Your task to perform on an android device: What's the weather like in London? Image 0: 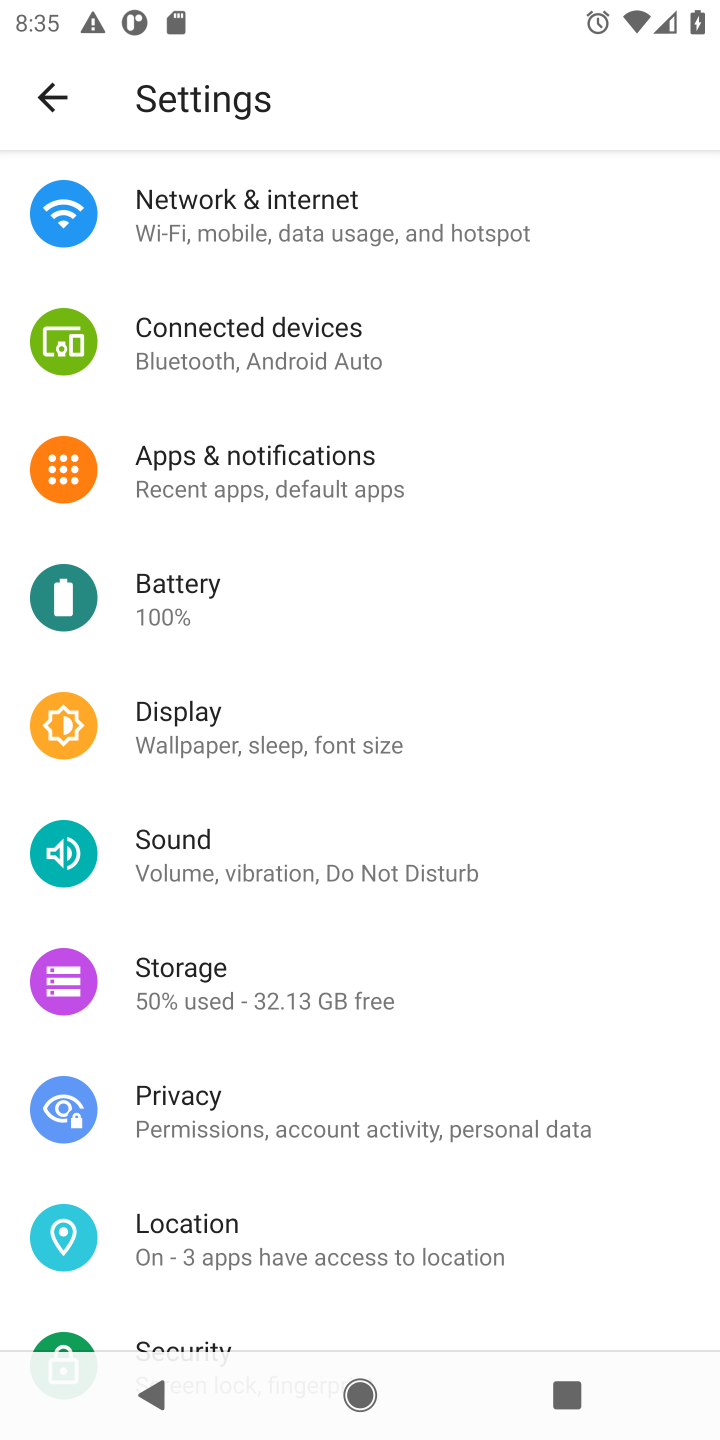
Step 0: press home button
Your task to perform on an android device: What's the weather like in London? Image 1: 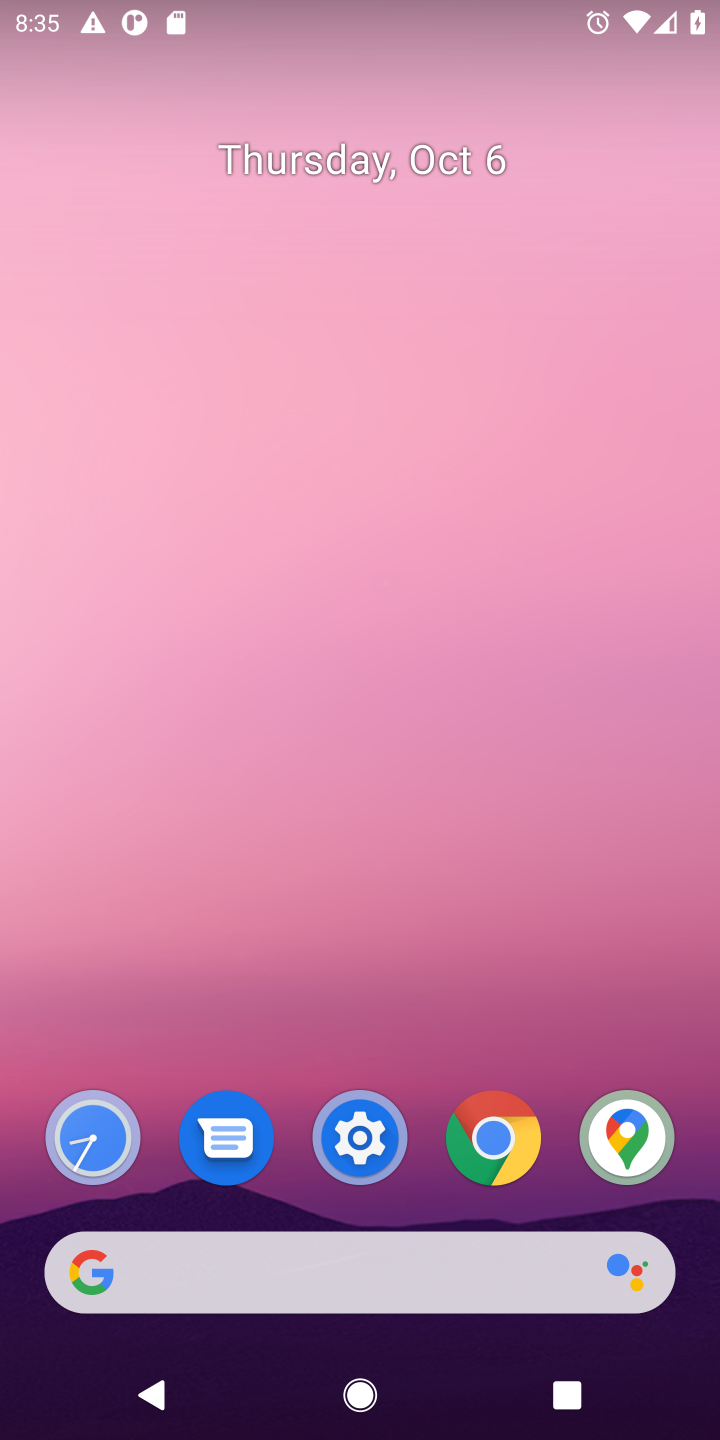
Step 1: click (440, 1283)
Your task to perform on an android device: What's the weather like in London? Image 2: 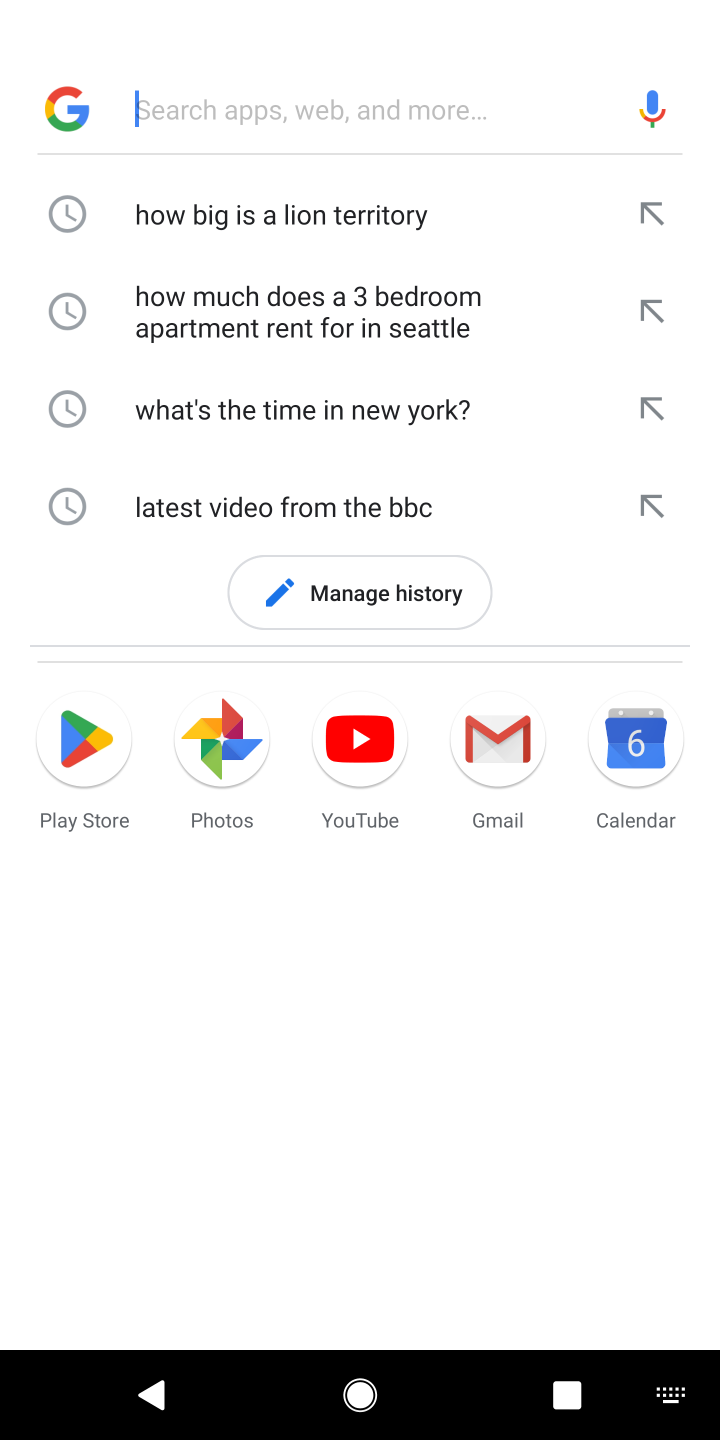
Step 2: drag from (422, 1343) to (573, 1432)
Your task to perform on an android device: What's the weather like in London? Image 3: 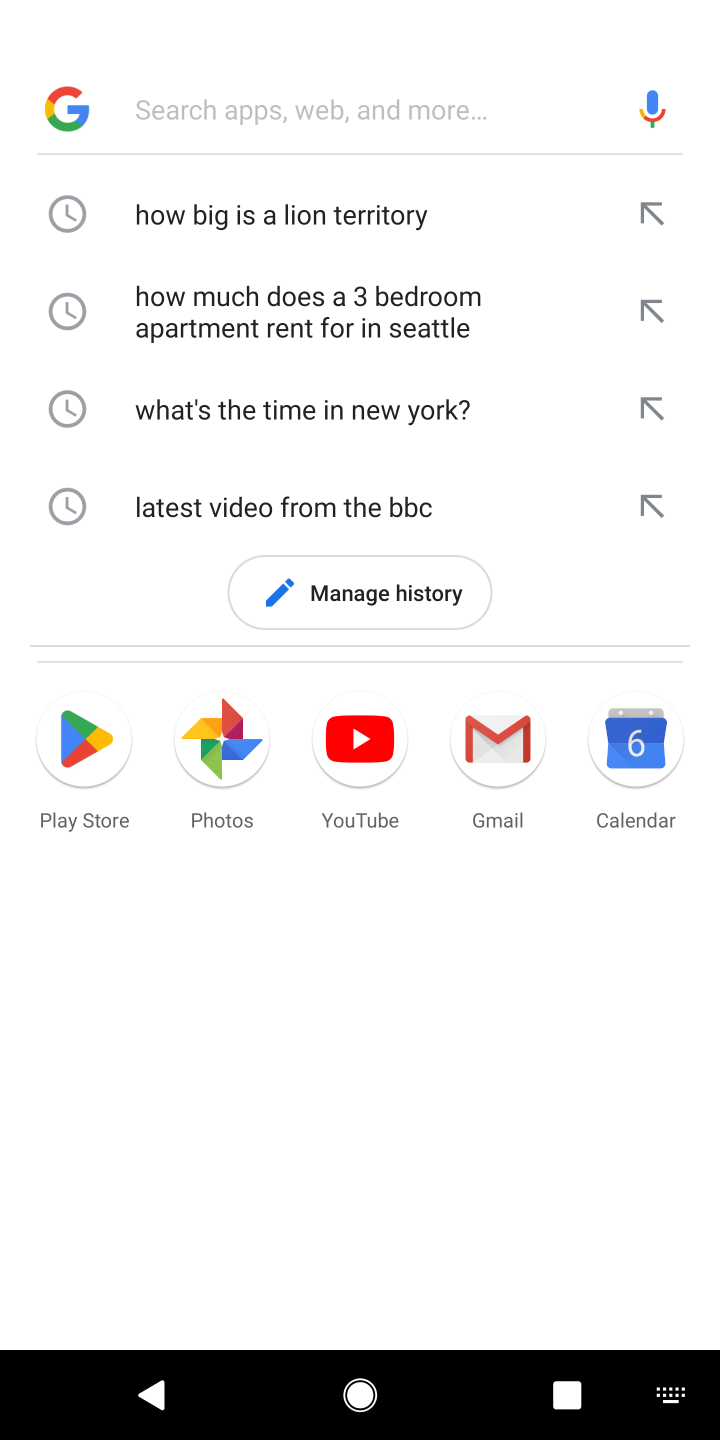
Step 3: type "What's the weather like in London?"
Your task to perform on an android device: What's the weather like in London? Image 4: 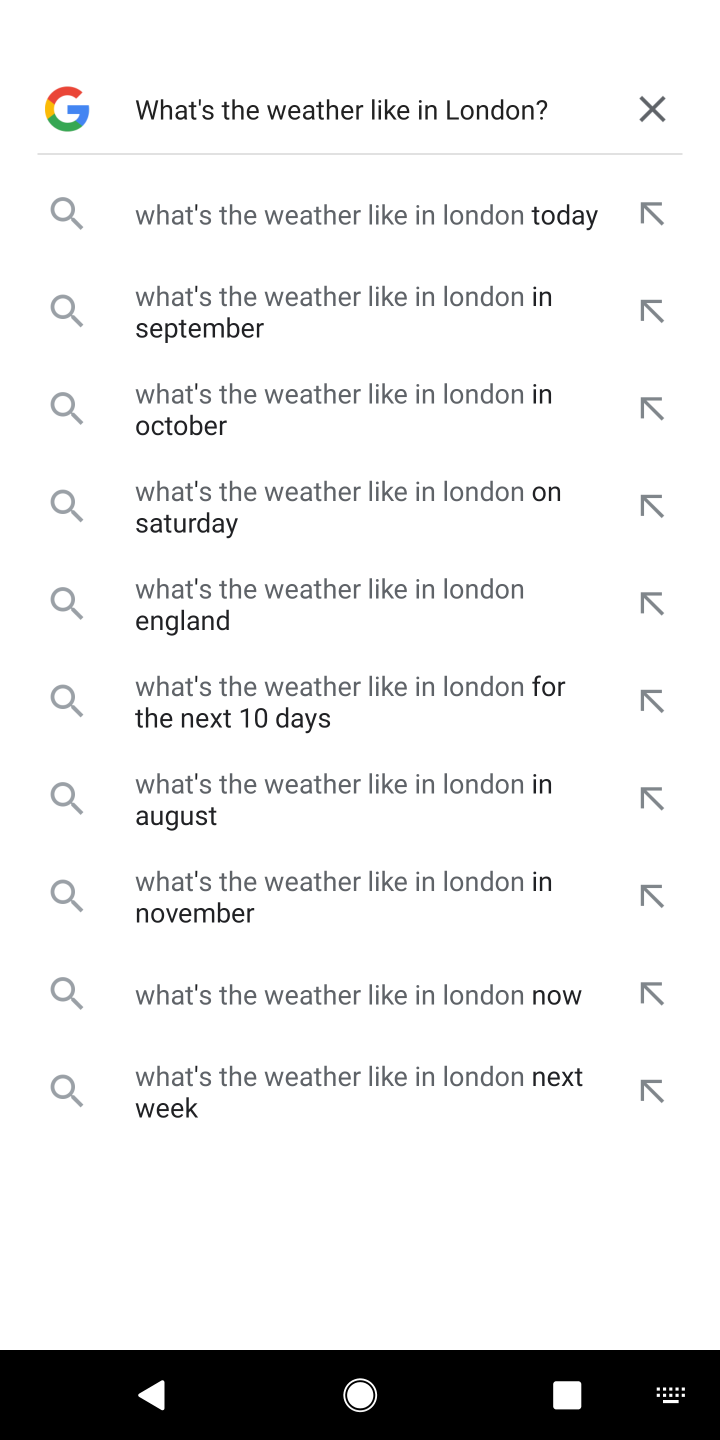
Step 4: drag from (573, 1432) to (708, 516)
Your task to perform on an android device: What's the weather like in London? Image 5: 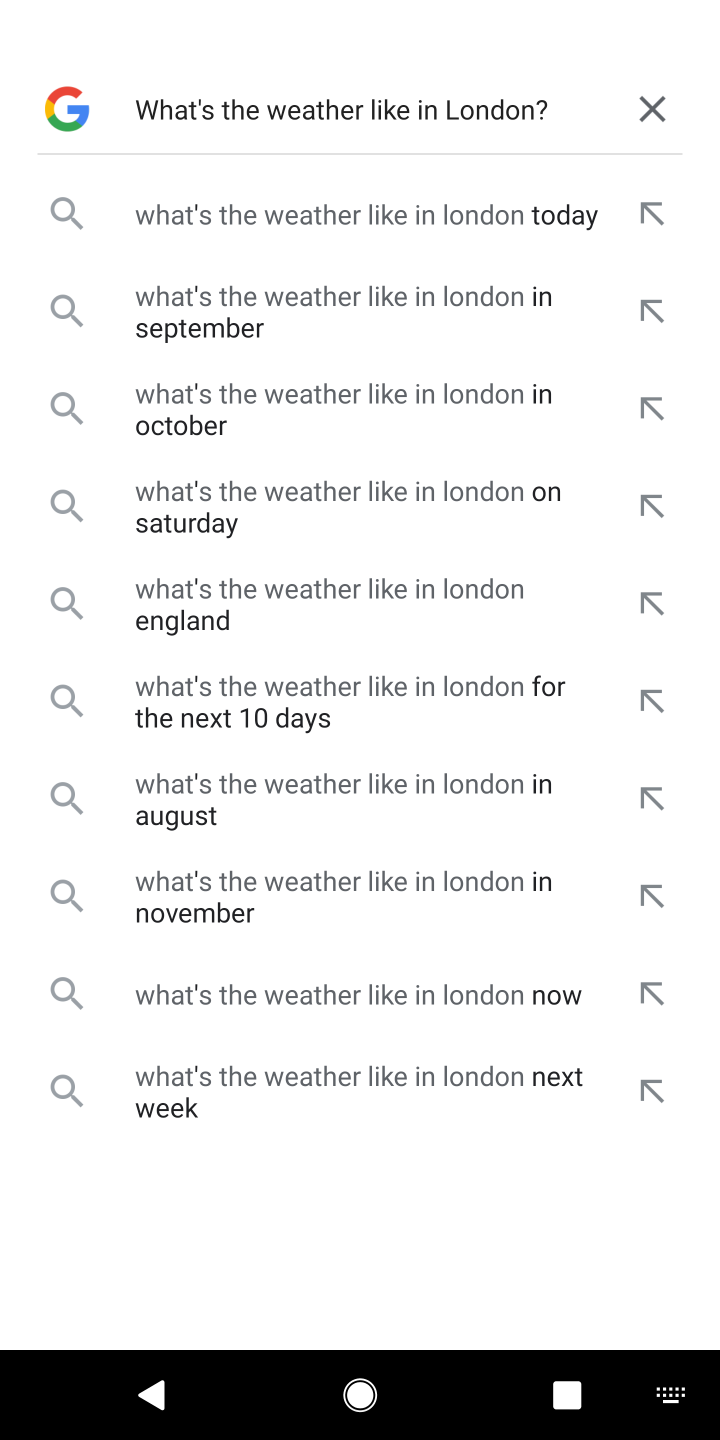
Step 5: click (511, 211)
Your task to perform on an android device: What's the weather like in London? Image 6: 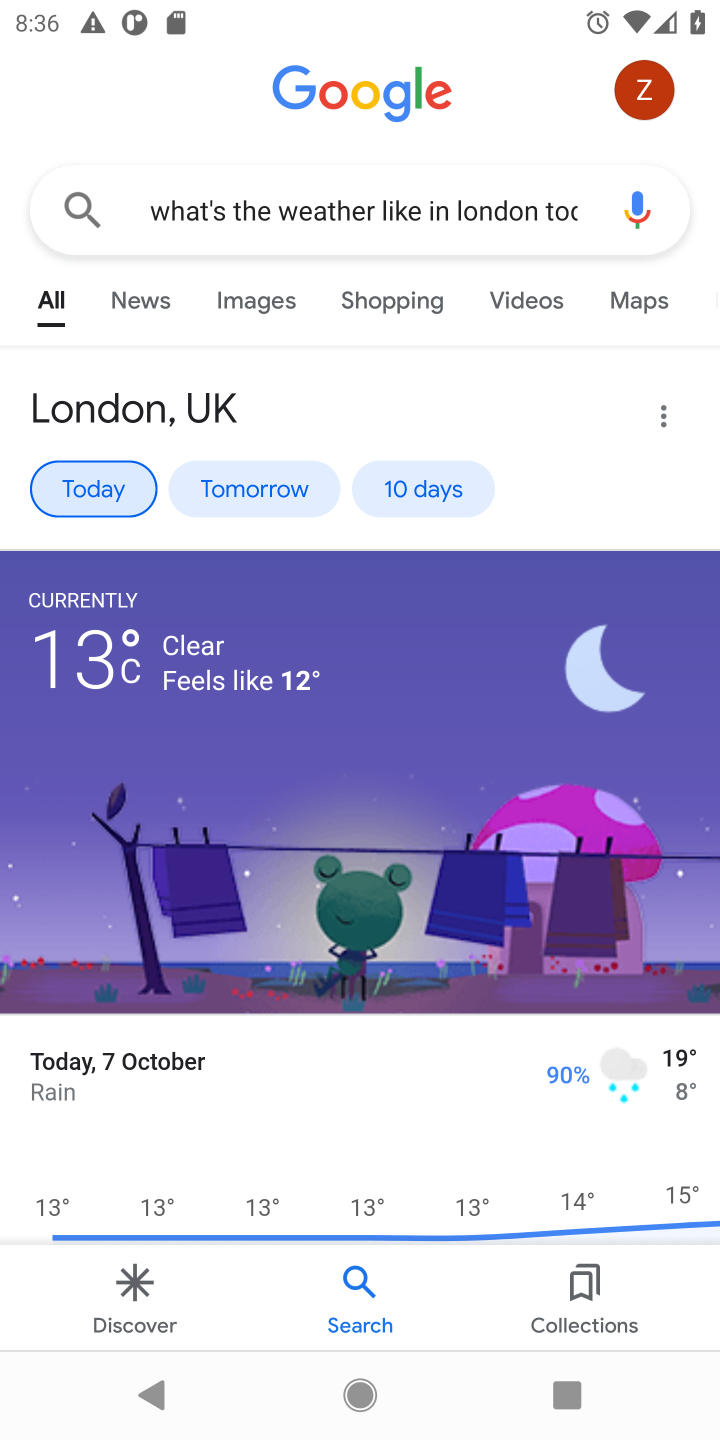
Step 6: task complete